Your task to perform on an android device: Open calendar and show me the first week of next month Image 0: 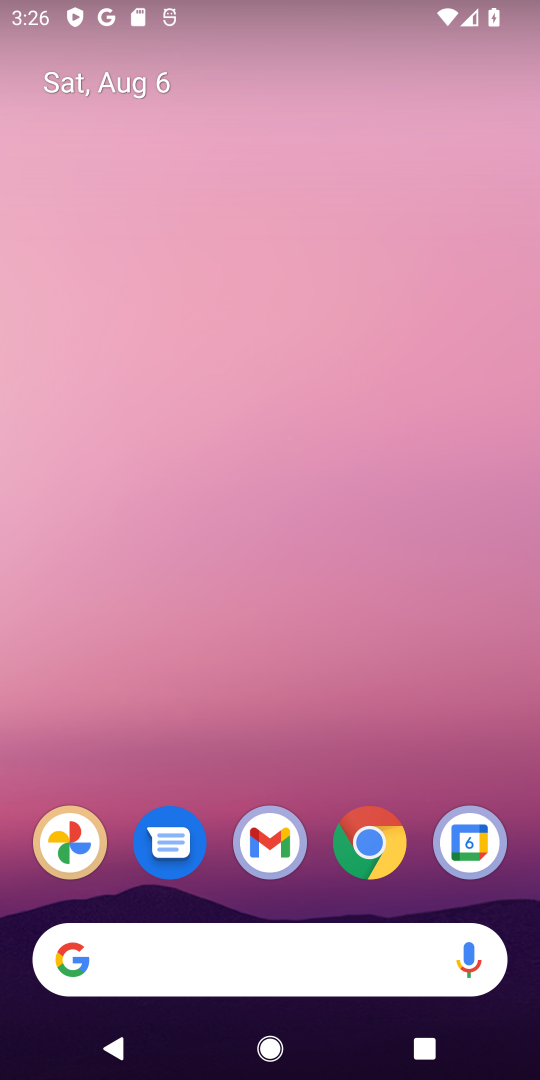
Step 0: click (476, 842)
Your task to perform on an android device: Open calendar and show me the first week of next month Image 1: 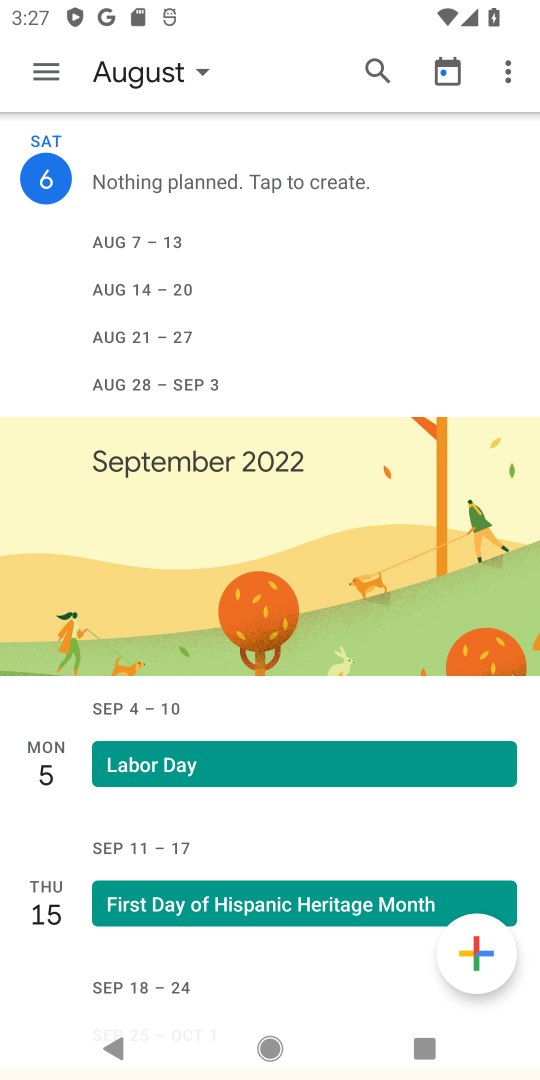
Step 1: click (203, 67)
Your task to perform on an android device: Open calendar and show me the first week of next month Image 2: 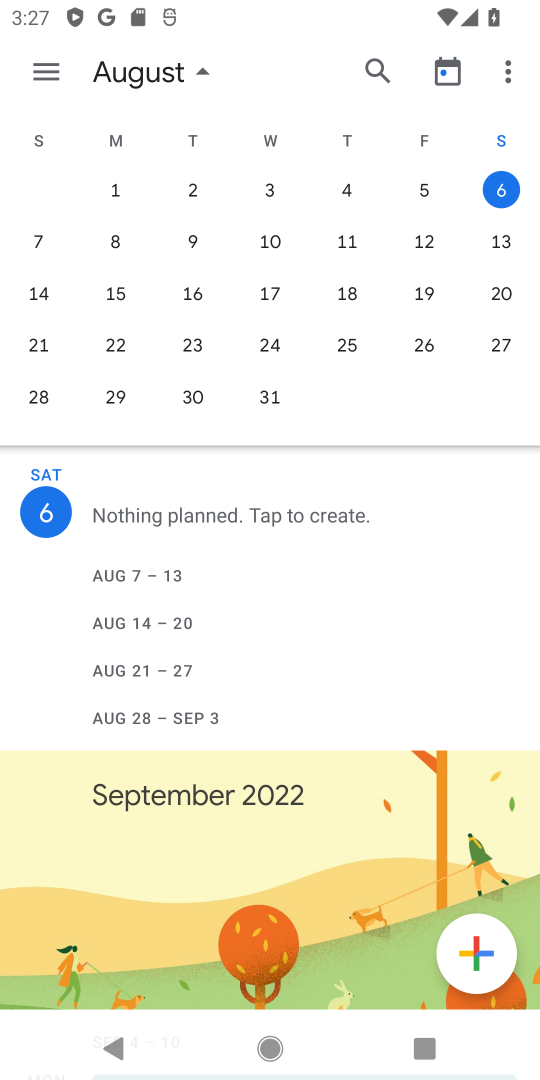
Step 2: drag from (518, 312) to (40, 282)
Your task to perform on an android device: Open calendar and show me the first week of next month Image 3: 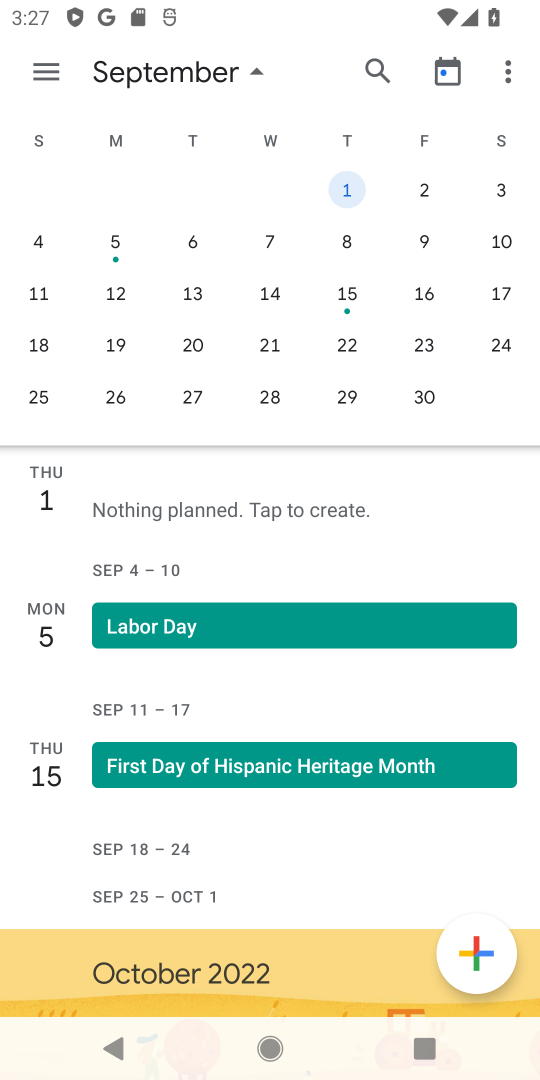
Step 3: click (425, 192)
Your task to perform on an android device: Open calendar and show me the first week of next month Image 4: 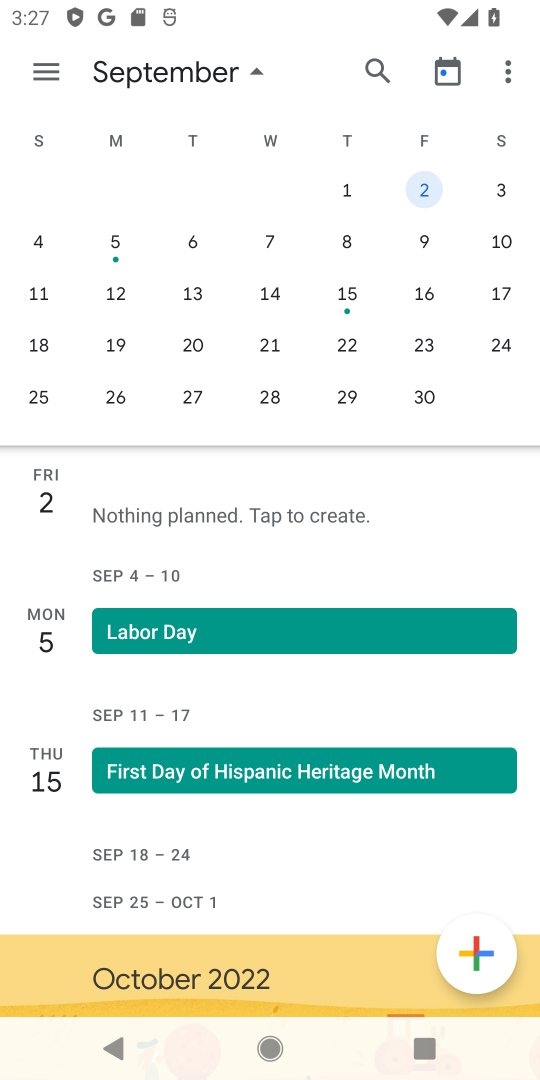
Step 4: click (48, 70)
Your task to perform on an android device: Open calendar and show me the first week of next month Image 5: 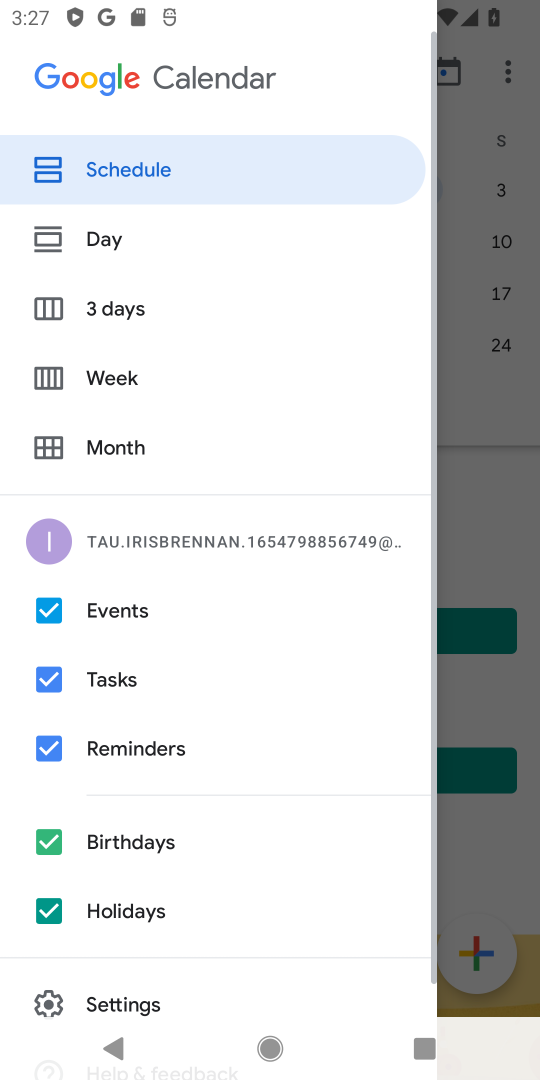
Step 5: click (114, 372)
Your task to perform on an android device: Open calendar and show me the first week of next month Image 6: 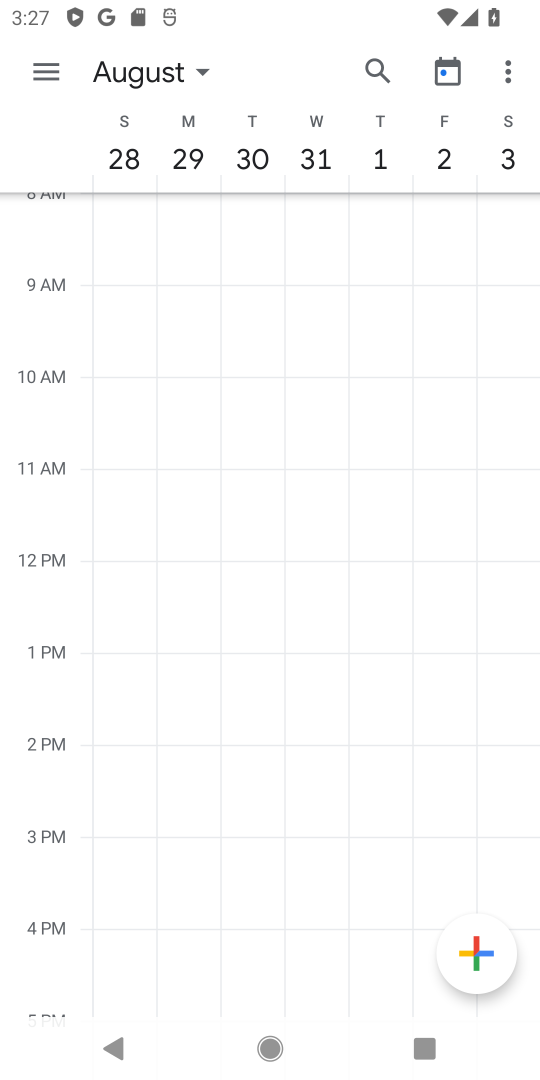
Step 6: task complete